Your task to perform on an android device: change keyboard looks Image 0: 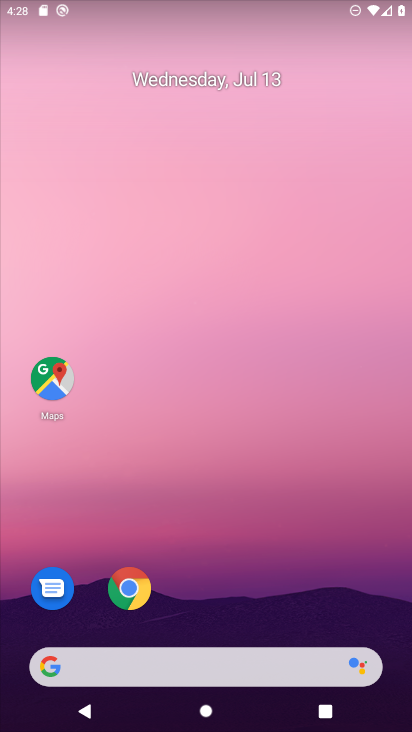
Step 0: drag from (274, 591) to (226, 244)
Your task to perform on an android device: change keyboard looks Image 1: 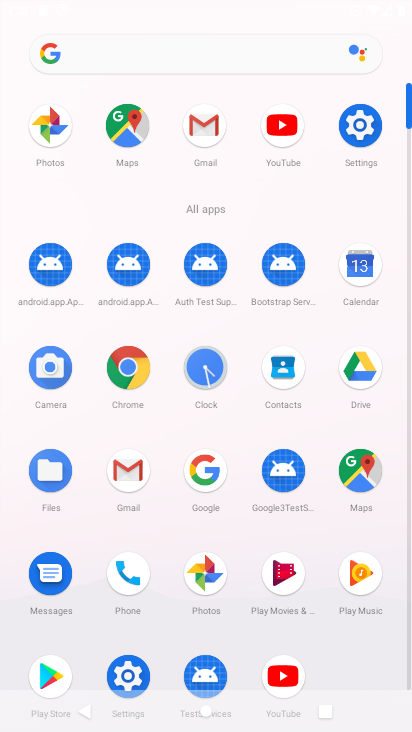
Step 1: click (347, 121)
Your task to perform on an android device: change keyboard looks Image 2: 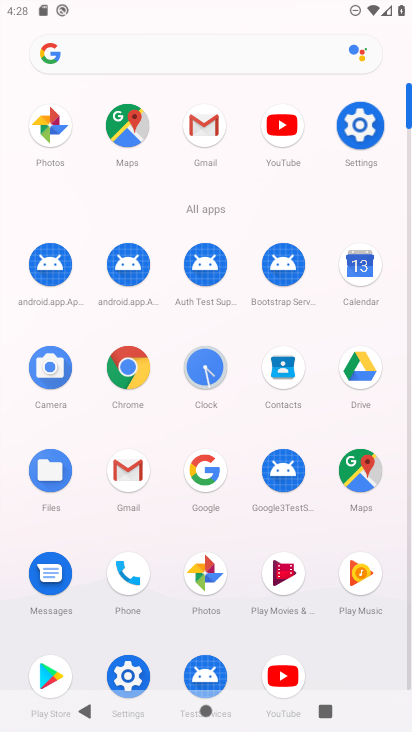
Step 2: click (348, 122)
Your task to perform on an android device: change keyboard looks Image 3: 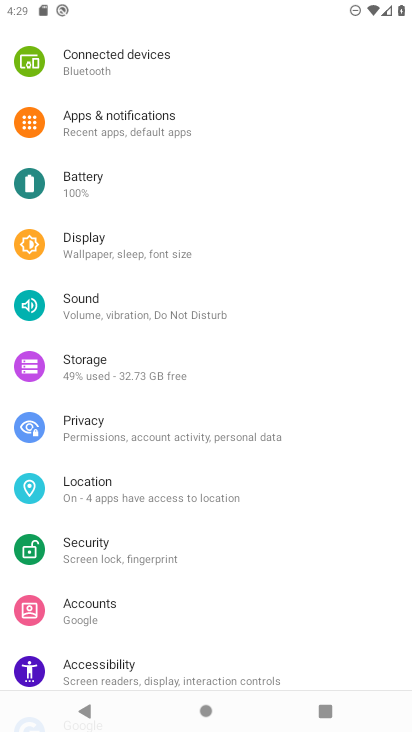
Step 3: drag from (202, 636) to (202, 239)
Your task to perform on an android device: change keyboard looks Image 4: 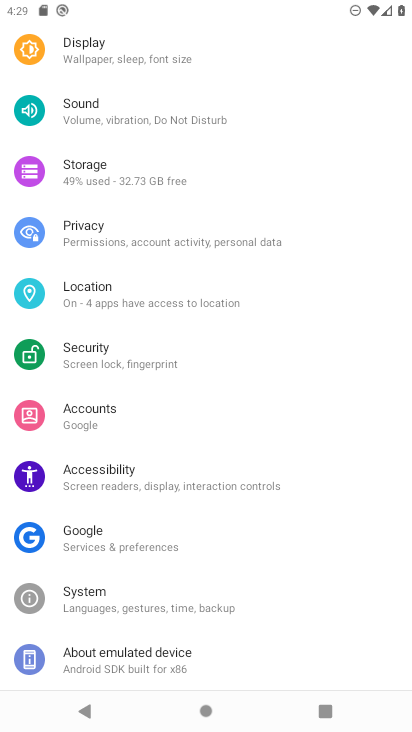
Step 4: drag from (156, 221) to (163, 605)
Your task to perform on an android device: change keyboard looks Image 5: 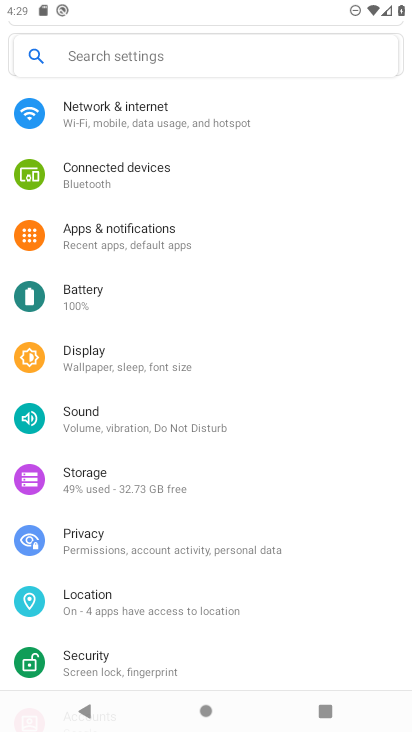
Step 5: drag from (125, 549) to (106, 197)
Your task to perform on an android device: change keyboard looks Image 6: 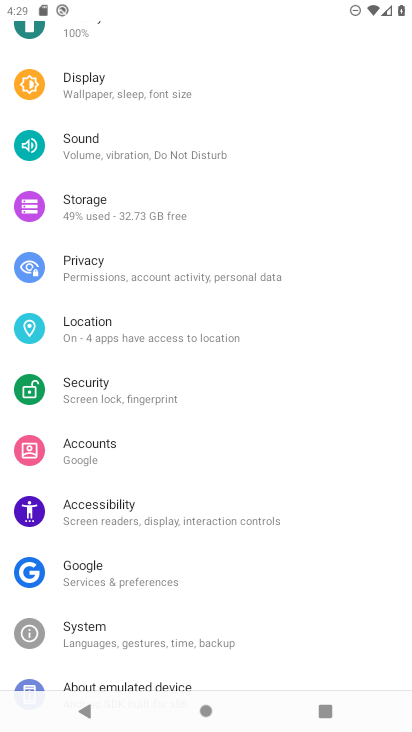
Step 6: drag from (171, 421) to (187, 190)
Your task to perform on an android device: change keyboard looks Image 7: 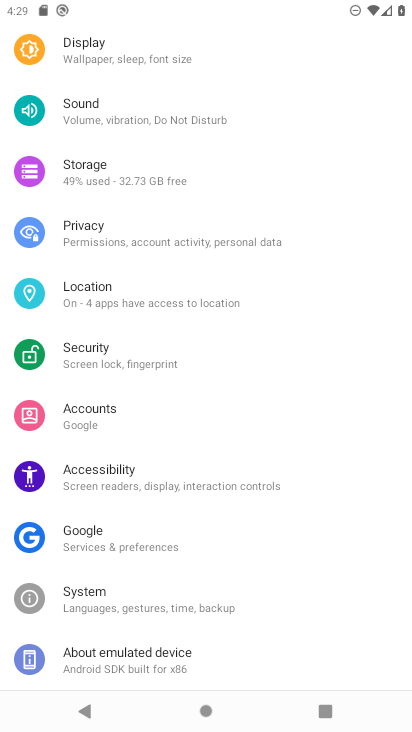
Step 7: click (95, 628)
Your task to perform on an android device: change keyboard looks Image 8: 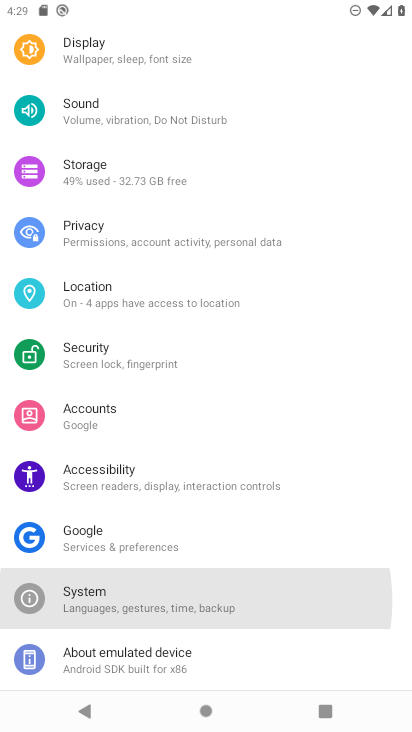
Step 8: click (95, 595)
Your task to perform on an android device: change keyboard looks Image 9: 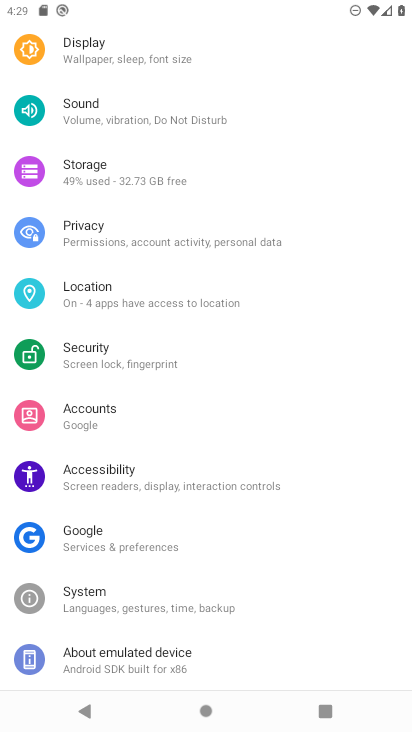
Step 9: click (95, 595)
Your task to perform on an android device: change keyboard looks Image 10: 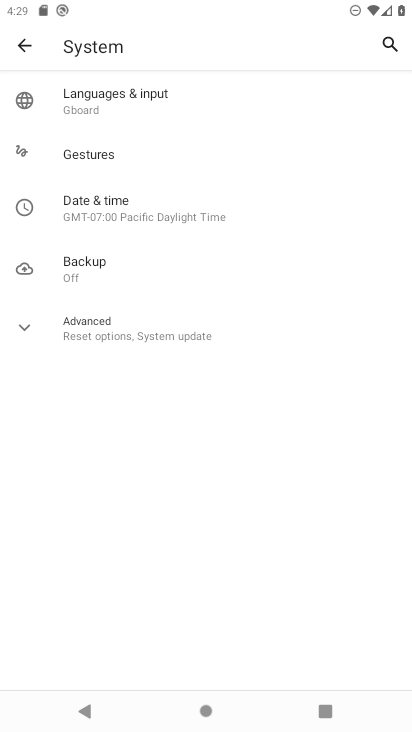
Step 10: click (92, 105)
Your task to perform on an android device: change keyboard looks Image 11: 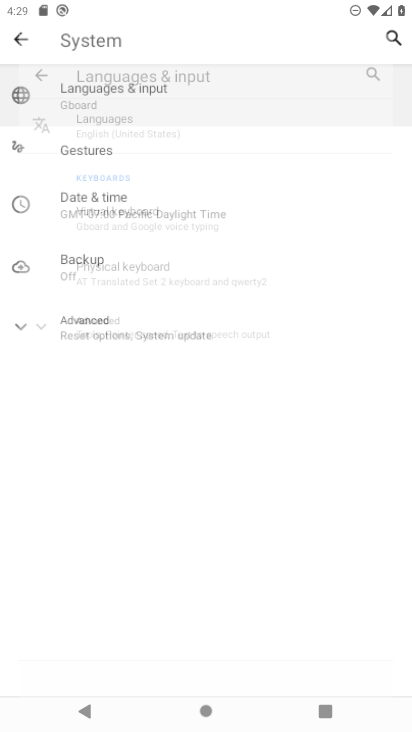
Step 11: click (92, 105)
Your task to perform on an android device: change keyboard looks Image 12: 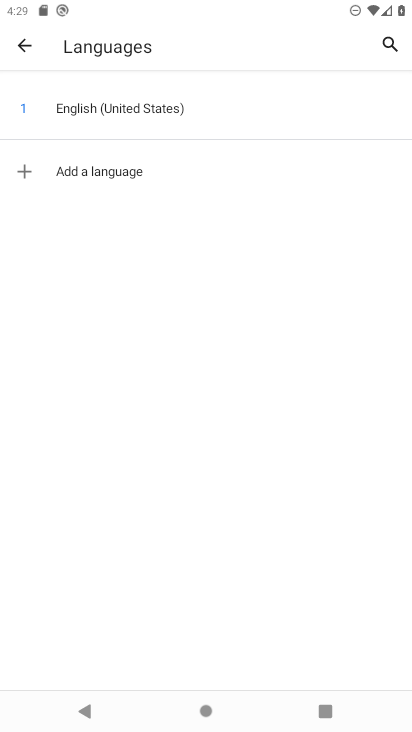
Step 12: click (24, 39)
Your task to perform on an android device: change keyboard looks Image 13: 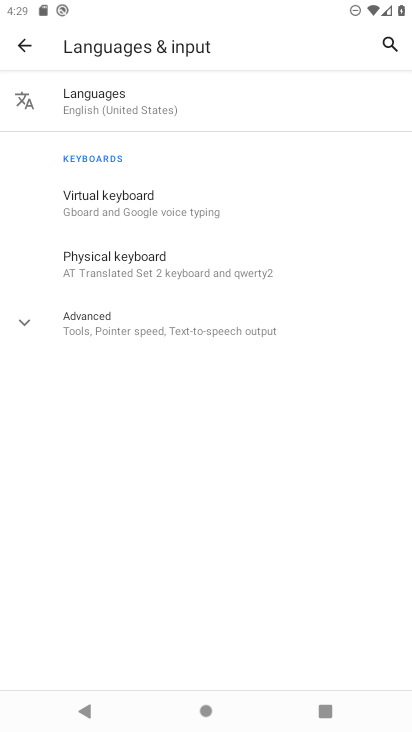
Step 13: click (89, 199)
Your task to perform on an android device: change keyboard looks Image 14: 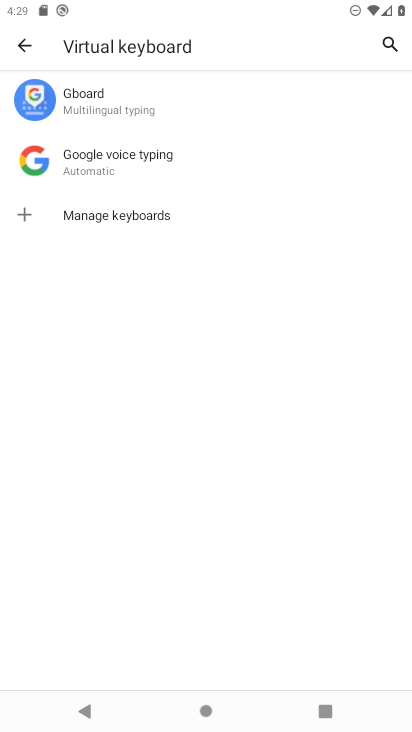
Step 14: click (69, 102)
Your task to perform on an android device: change keyboard looks Image 15: 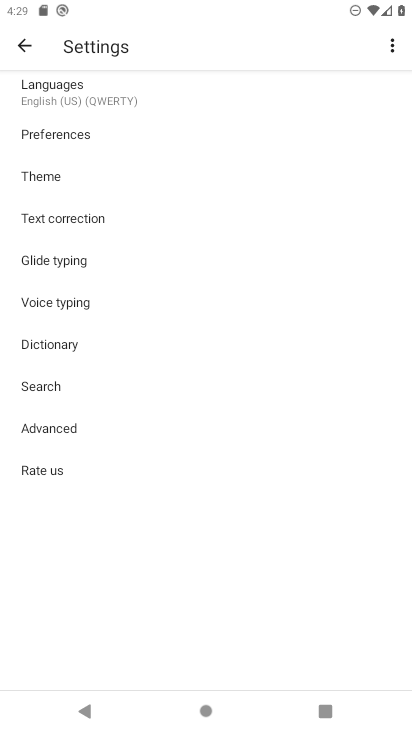
Step 15: click (41, 175)
Your task to perform on an android device: change keyboard looks Image 16: 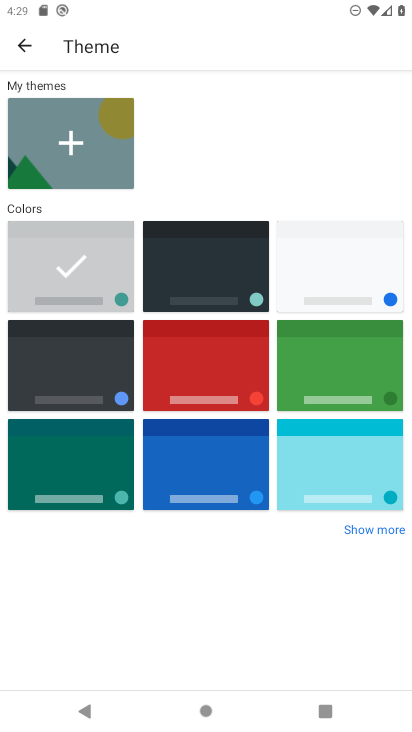
Step 16: click (58, 352)
Your task to perform on an android device: change keyboard looks Image 17: 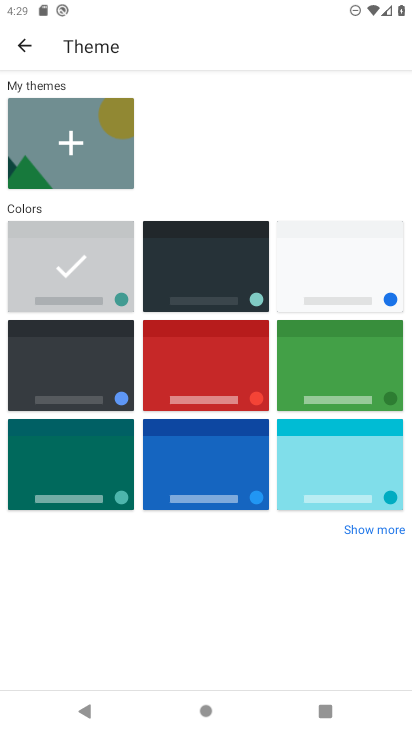
Step 17: click (59, 350)
Your task to perform on an android device: change keyboard looks Image 18: 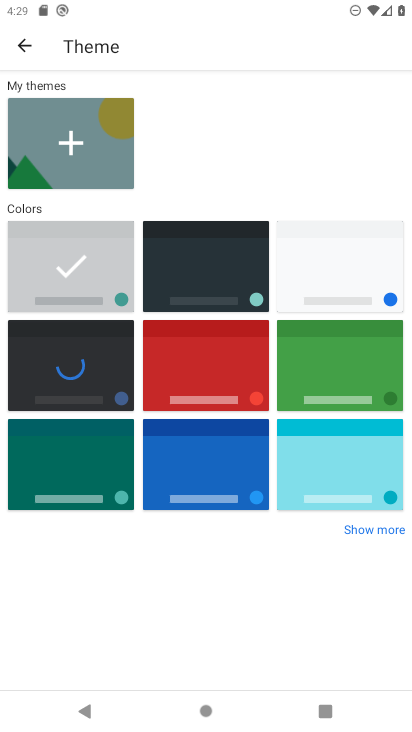
Step 18: click (59, 350)
Your task to perform on an android device: change keyboard looks Image 19: 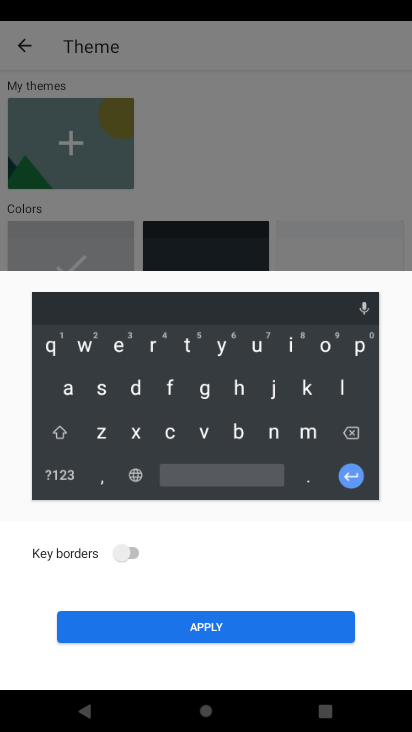
Step 19: click (207, 620)
Your task to perform on an android device: change keyboard looks Image 20: 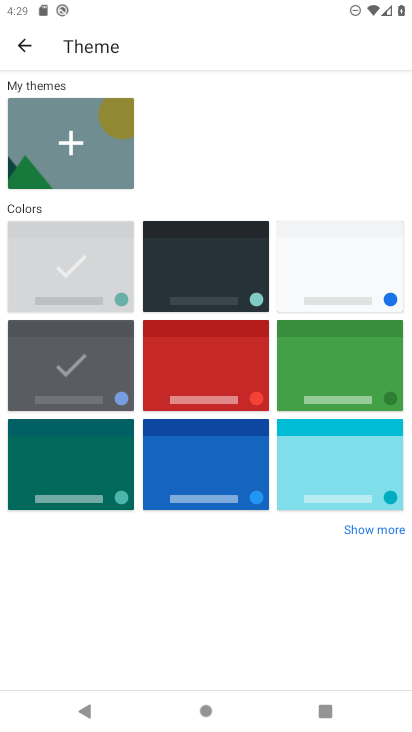
Step 20: click (207, 620)
Your task to perform on an android device: change keyboard looks Image 21: 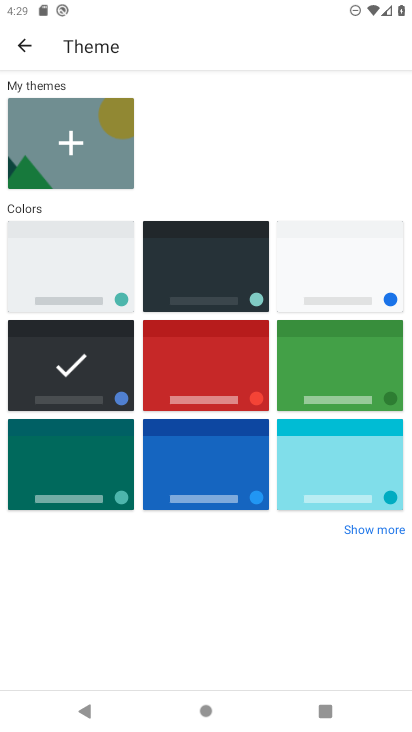
Step 21: task complete